Your task to perform on an android device: Open Google Maps and go to "Timeline" Image 0: 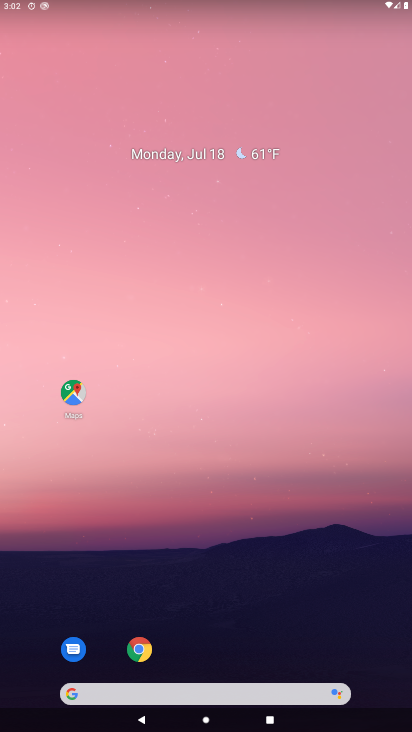
Step 0: click (75, 395)
Your task to perform on an android device: Open Google Maps and go to "Timeline" Image 1: 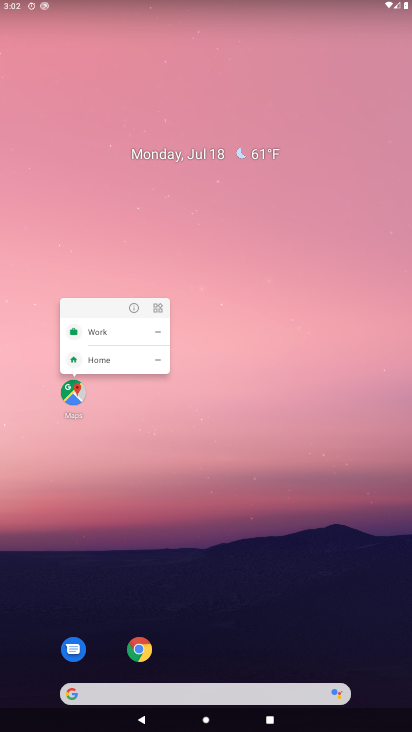
Step 1: click (79, 388)
Your task to perform on an android device: Open Google Maps and go to "Timeline" Image 2: 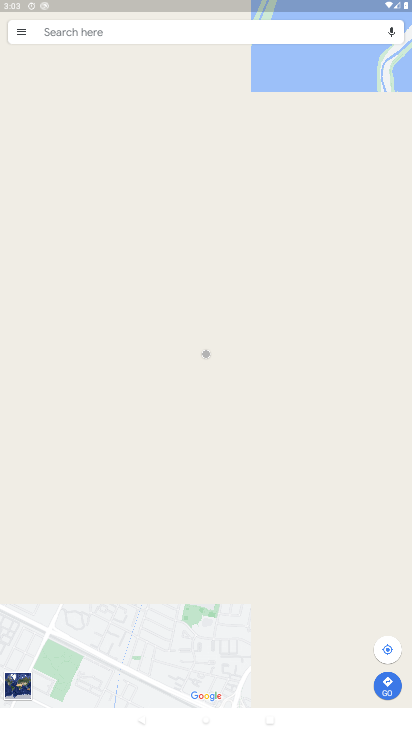
Step 2: click (20, 24)
Your task to perform on an android device: Open Google Maps and go to "Timeline" Image 3: 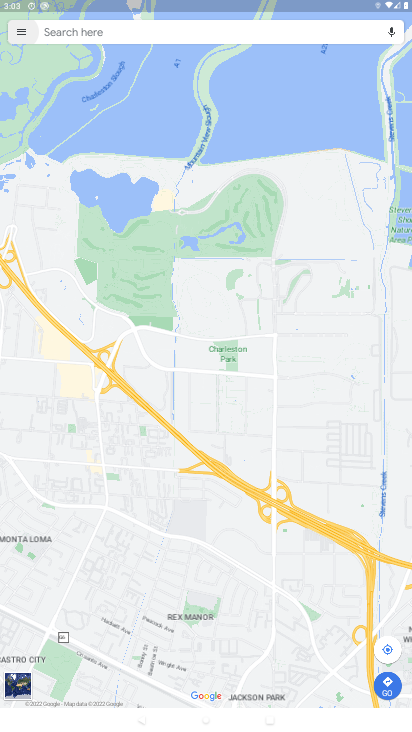
Step 3: click (20, 30)
Your task to perform on an android device: Open Google Maps and go to "Timeline" Image 4: 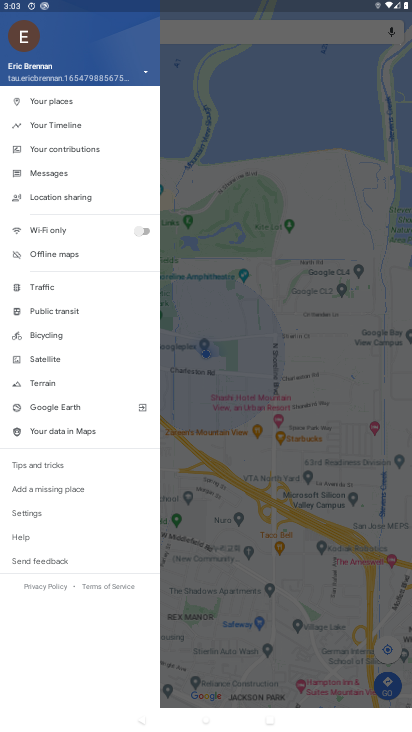
Step 4: click (41, 127)
Your task to perform on an android device: Open Google Maps and go to "Timeline" Image 5: 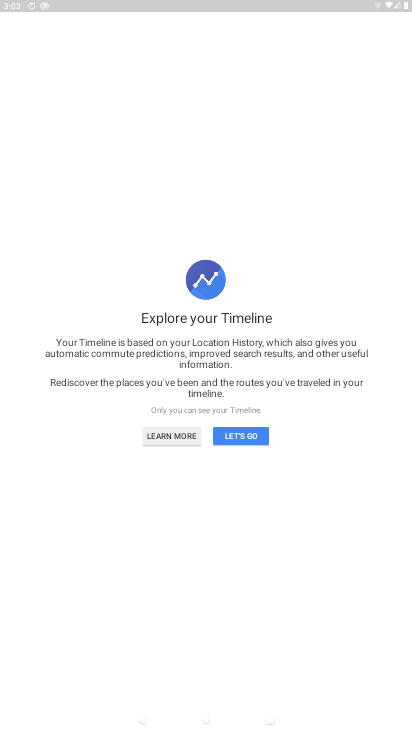
Step 5: click (233, 435)
Your task to perform on an android device: Open Google Maps and go to "Timeline" Image 6: 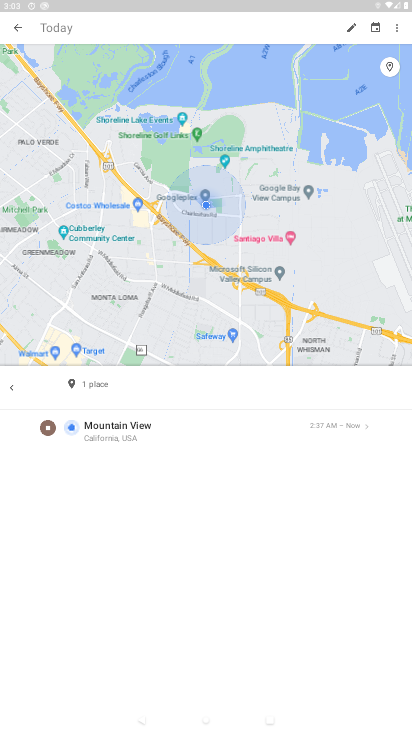
Step 6: task complete